Your task to perform on an android device: Open the web browser Image 0: 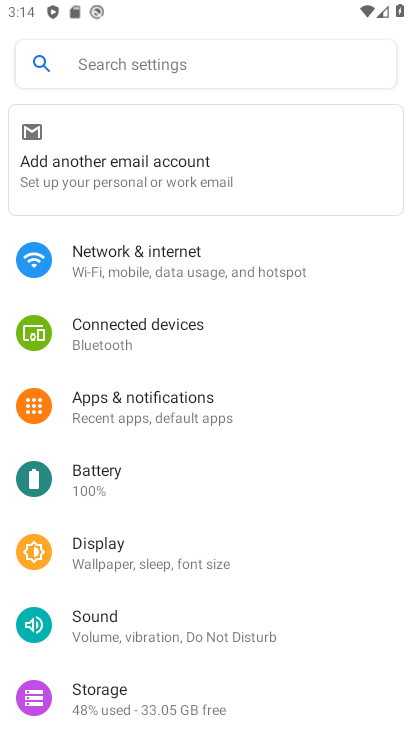
Step 0: press home button
Your task to perform on an android device: Open the web browser Image 1: 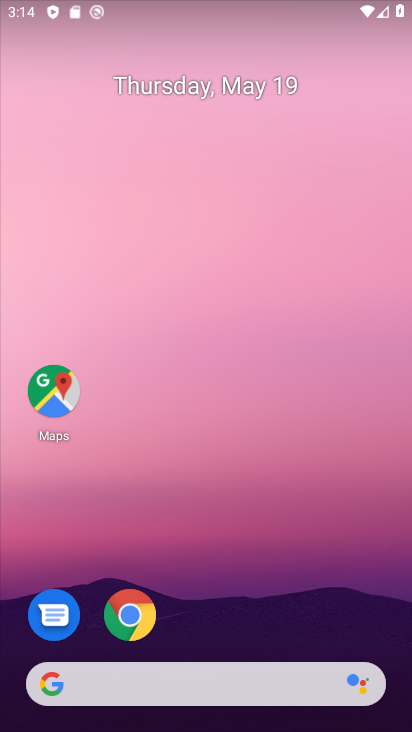
Step 1: drag from (324, 403) to (319, 176)
Your task to perform on an android device: Open the web browser Image 2: 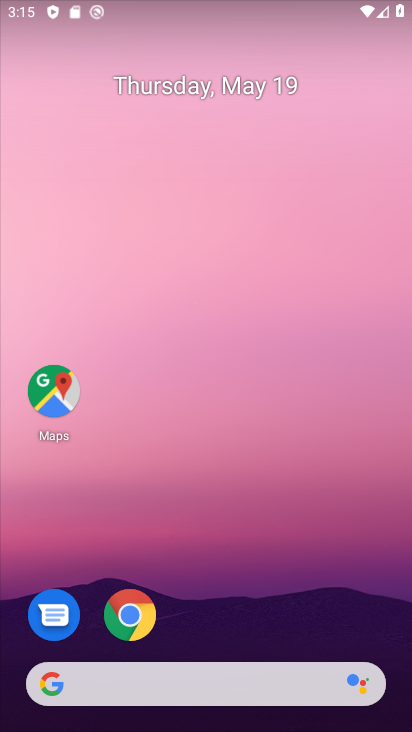
Step 2: click (126, 608)
Your task to perform on an android device: Open the web browser Image 3: 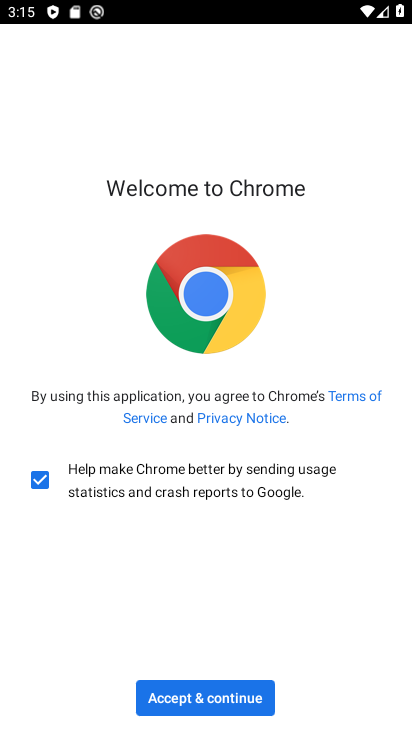
Step 3: click (201, 687)
Your task to perform on an android device: Open the web browser Image 4: 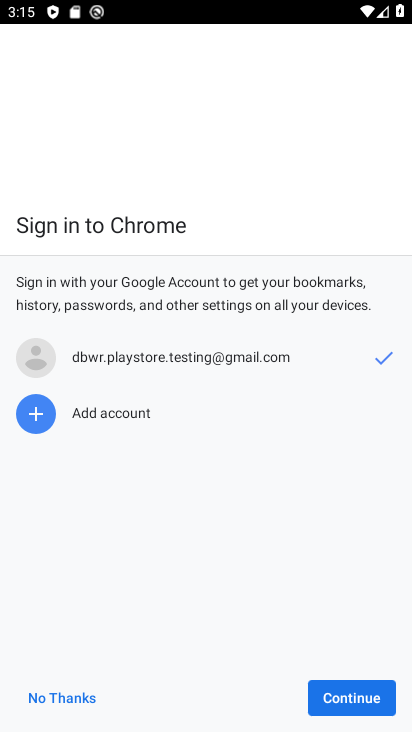
Step 4: click (330, 700)
Your task to perform on an android device: Open the web browser Image 5: 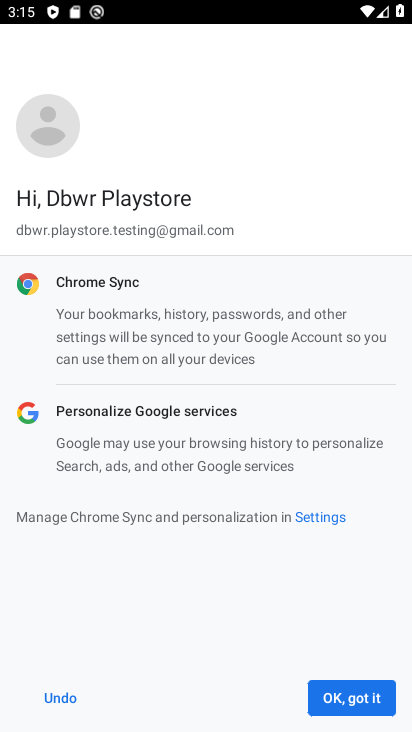
Step 5: click (342, 685)
Your task to perform on an android device: Open the web browser Image 6: 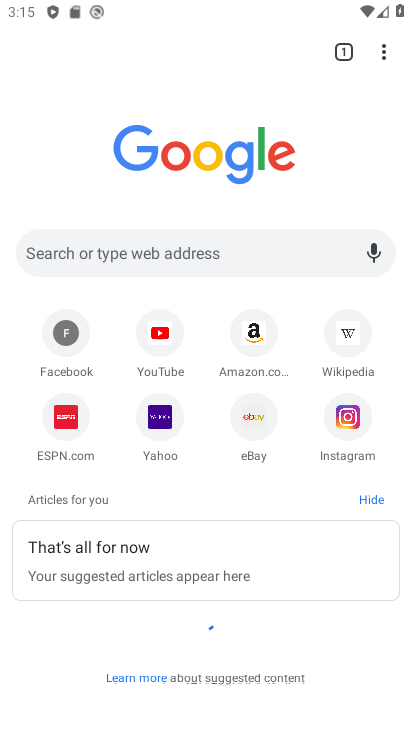
Step 6: task complete